Your task to perform on an android device: set an alarm Image 0: 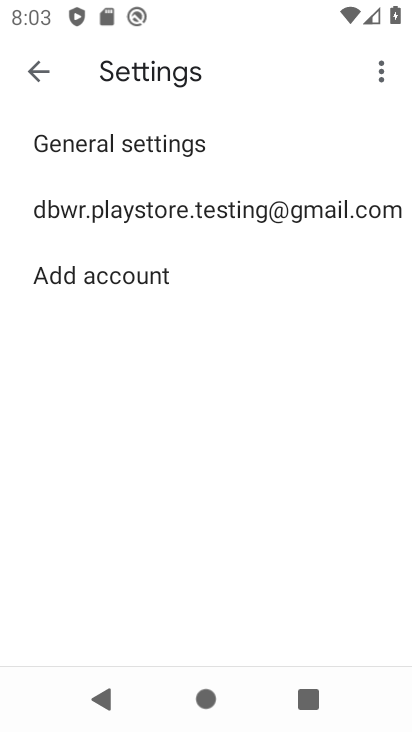
Step 0: press back button
Your task to perform on an android device: set an alarm Image 1: 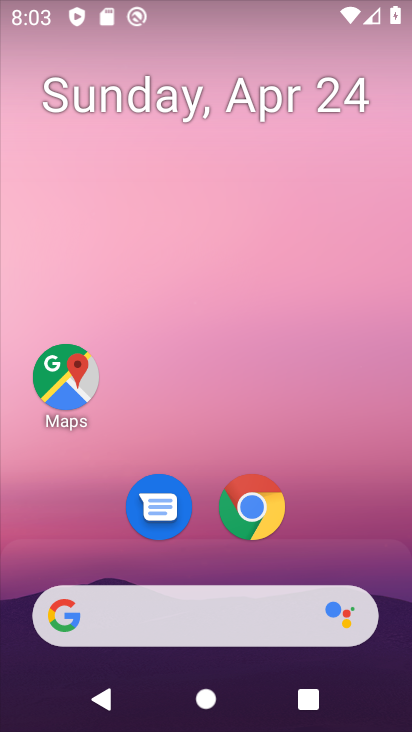
Step 1: drag from (372, 552) to (300, 212)
Your task to perform on an android device: set an alarm Image 2: 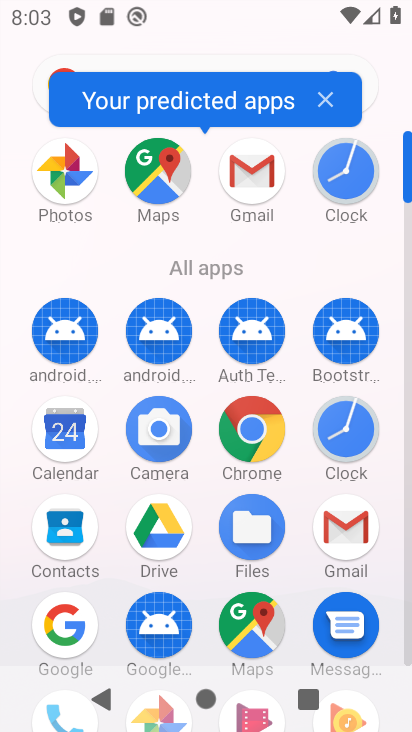
Step 2: click (334, 454)
Your task to perform on an android device: set an alarm Image 3: 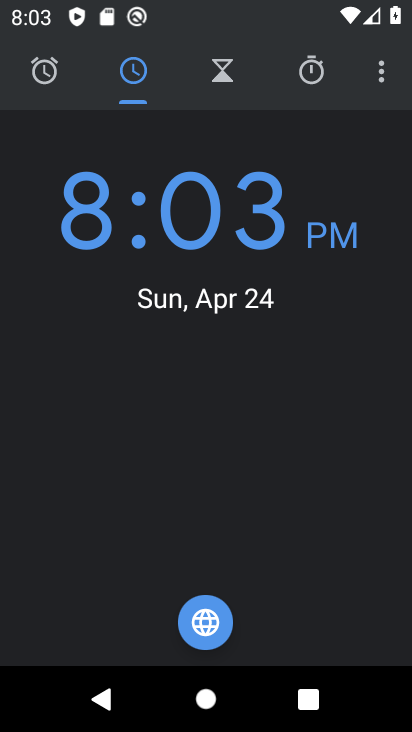
Step 3: click (60, 83)
Your task to perform on an android device: set an alarm Image 4: 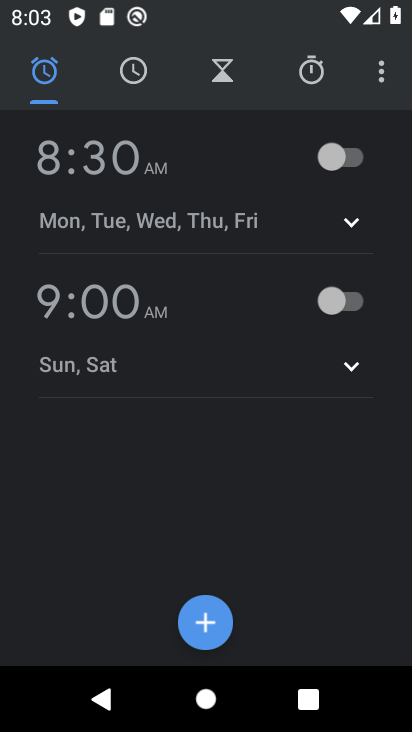
Step 4: click (215, 630)
Your task to perform on an android device: set an alarm Image 5: 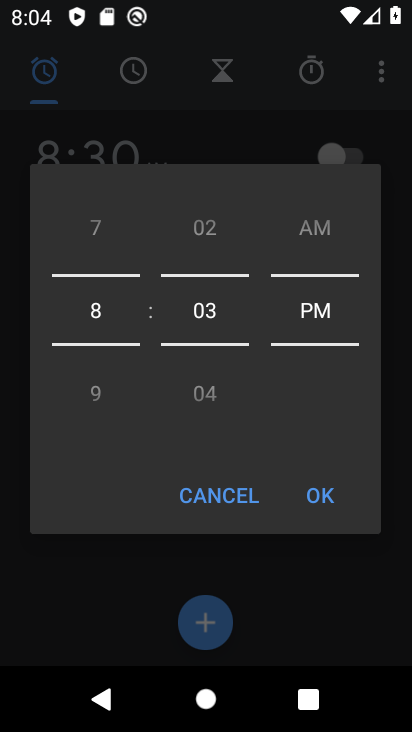
Step 5: click (323, 488)
Your task to perform on an android device: set an alarm Image 6: 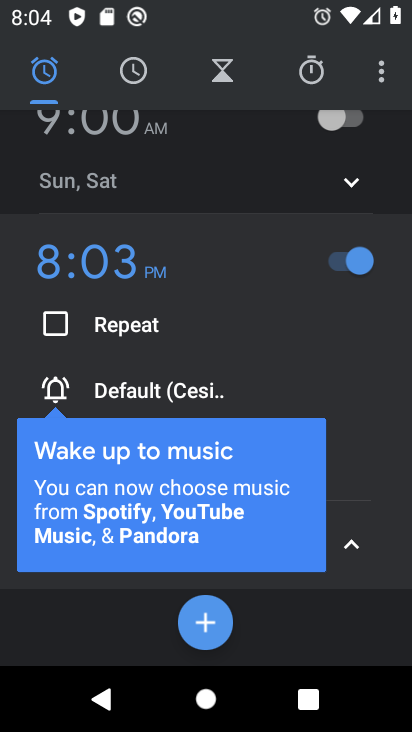
Step 6: task complete